Your task to perform on an android device: Show me productivity apps on the Play Store Image 0: 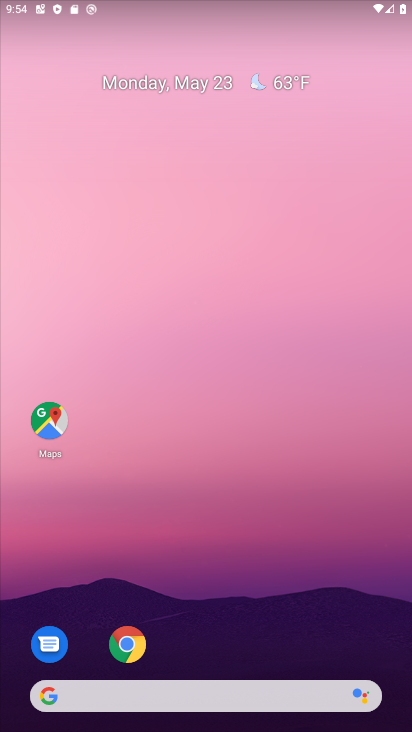
Step 0: drag from (225, 643) to (232, 101)
Your task to perform on an android device: Show me productivity apps on the Play Store Image 1: 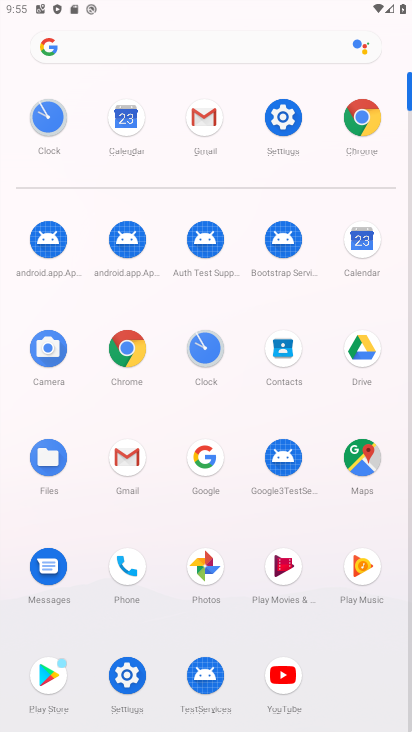
Step 1: click (281, 107)
Your task to perform on an android device: Show me productivity apps on the Play Store Image 2: 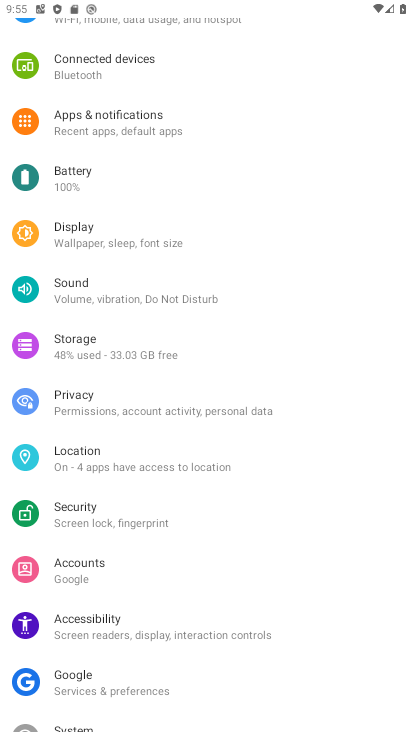
Step 2: press home button
Your task to perform on an android device: Show me productivity apps on the Play Store Image 3: 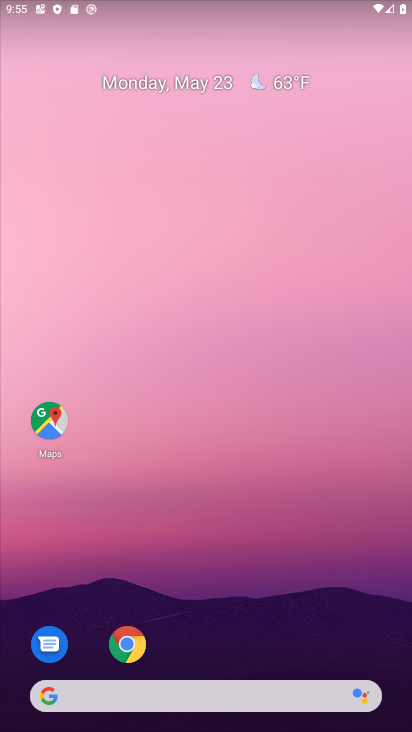
Step 3: drag from (223, 650) to (236, 15)
Your task to perform on an android device: Show me productivity apps on the Play Store Image 4: 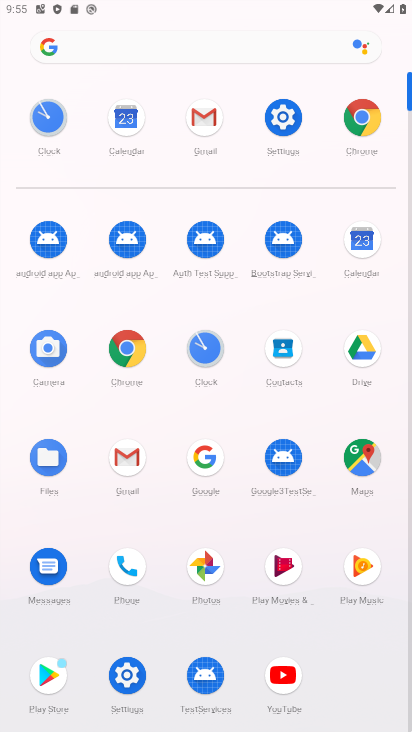
Step 4: click (46, 667)
Your task to perform on an android device: Show me productivity apps on the Play Store Image 5: 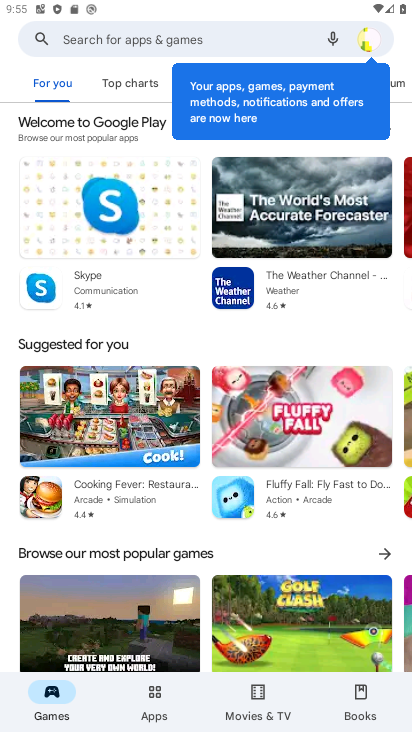
Step 5: click (158, 694)
Your task to perform on an android device: Show me productivity apps on the Play Store Image 6: 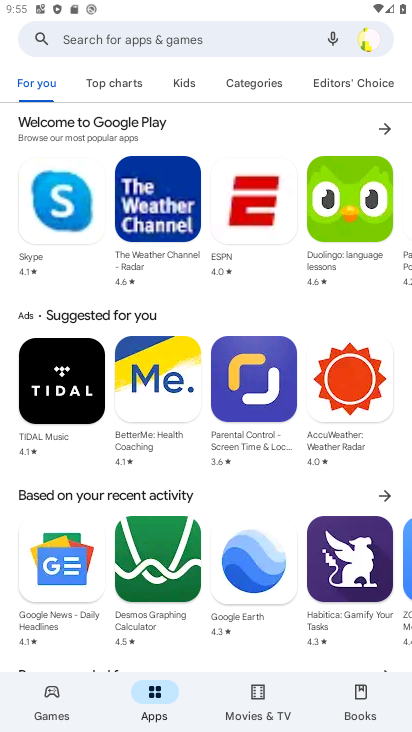
Step 6: click (250, 82)
Your task to perform on an android device: Show me productivity apps on the Play Store Image 7: 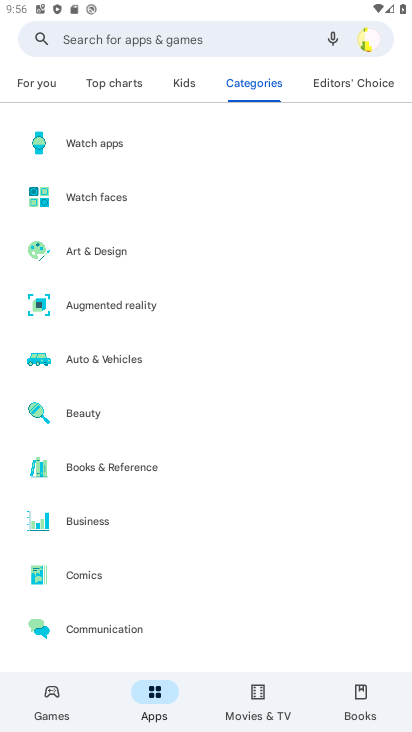
Step 7: drag from (149, 644) to (149, 28)
Your task to perform on an android device: Show me productivity apps on the Play Store Image 8: 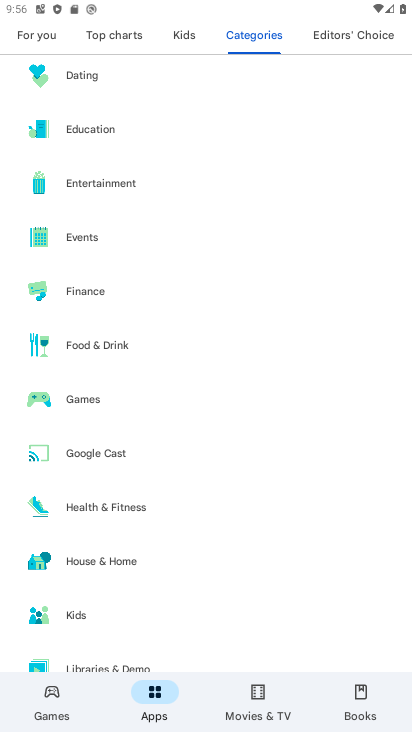
Step 8: drag from (136, 640) to (174, 0)
Your task to perform on an android device: Show me productivity apps on the Play Store Image 9: 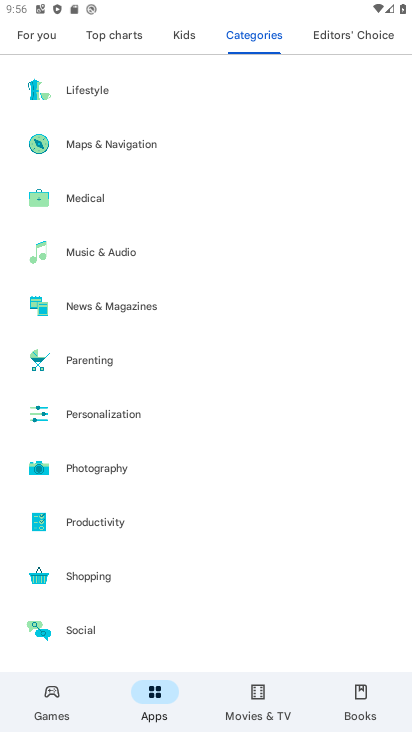
Step 9: click (134, 522)
Your task to perform on an android device: Show me productivity apps on the Play Store Image 10: 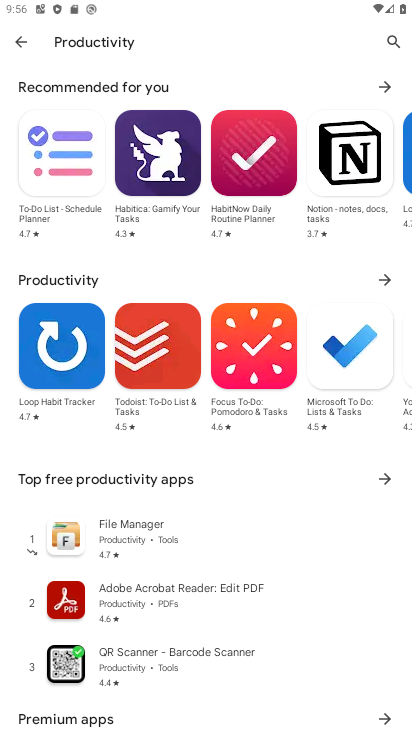
Step 10: task complete